Your task to perform on an android device: Open Maps and search for coffee Image 0: 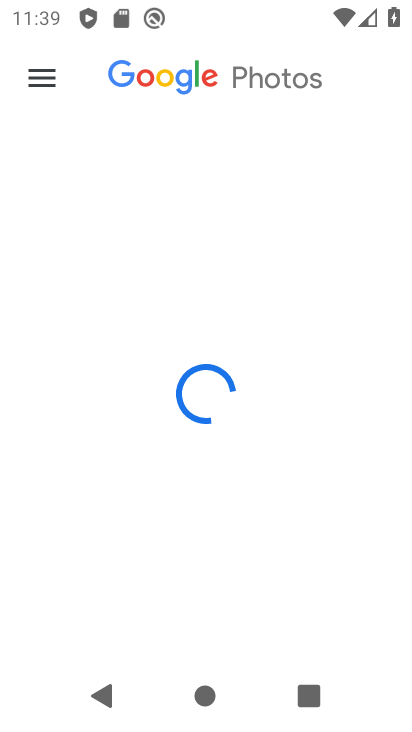
Step 0: press home button
Your task to perform on an android device: Open Maps and search for coffee Image 1: 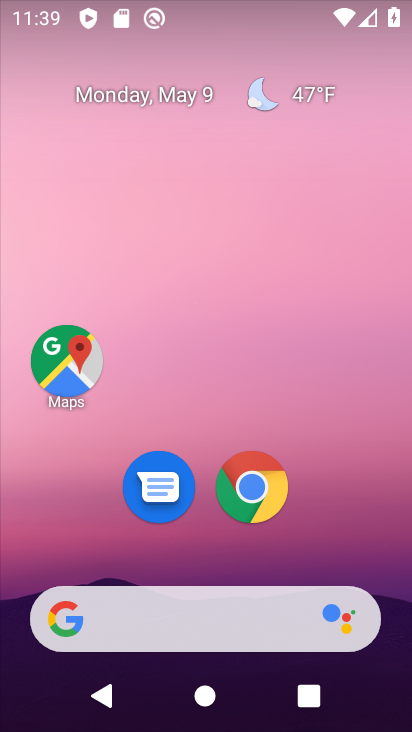
Step 1: click (69, 351)
Your task to perform on an android device: Open Maps and search for coffee Image 2: 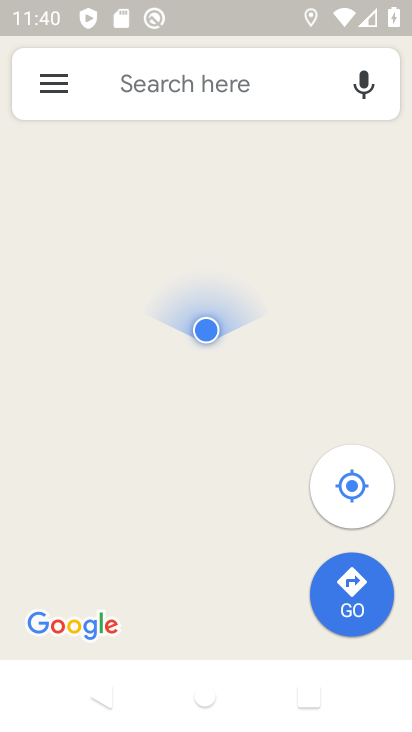
Step 2: click (147, 82)
Your task to perform on an android device: Open Maps and search for coffee Image 3: 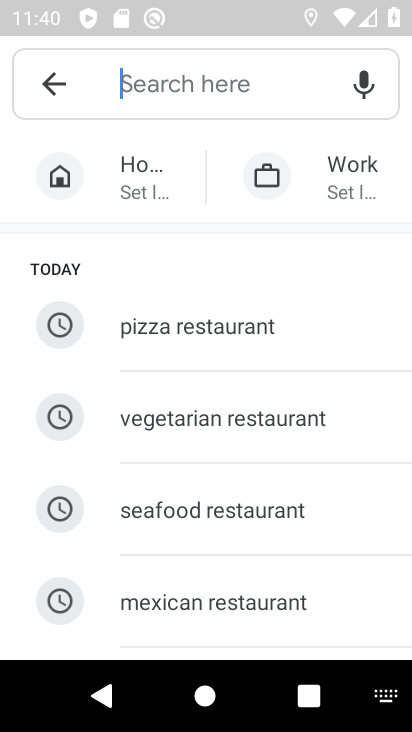
Step 3: type "coffee"
Your task to perform on an android device: Open Maps and search for coffee Image 4: 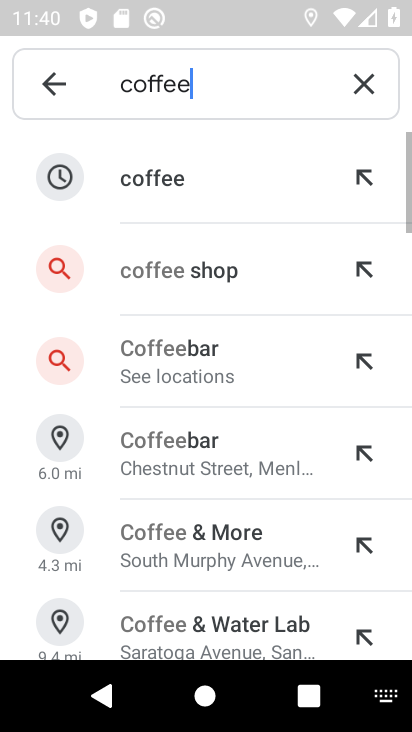
Step 4: click (174, 187)
Your task to perform on an android device: Open Maps and search for coffee Image 5: 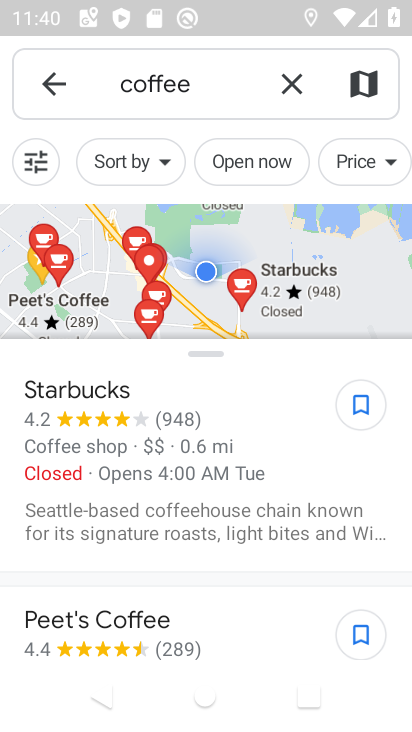
Step 5: task complete